Your task to perform on an android device: Open the Play Movies app and select the watchlist tab. Image 0: 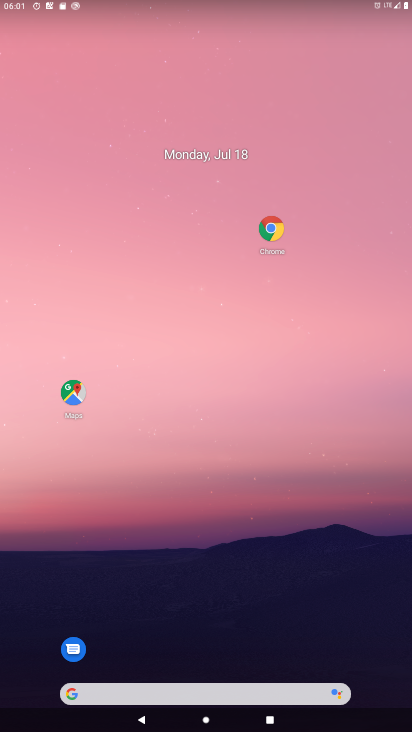
Step 0: drag from (154, 659) to (174, 12)
Your task to perform on an android device: Open the Play Movies app and select the watchlist tab. Image 1: 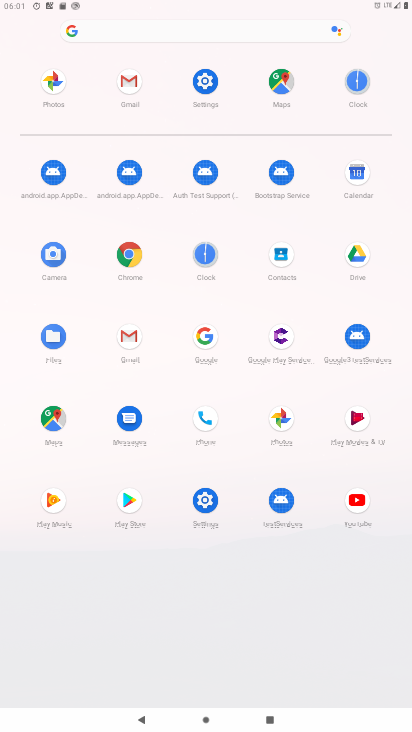
Step 1: click (360, 422)
Your task to perform on an android device: Open the Play Movies app and select the watchlist tab. Image 2: 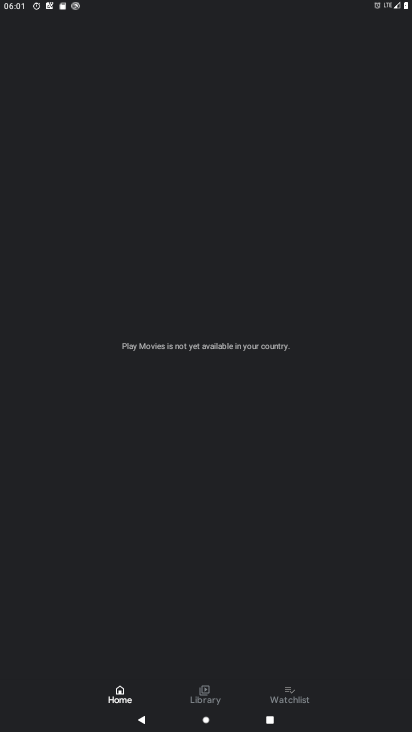
Step 2: click (302, 701)
Your task to perform on an android device: Open the Play Movies app and select the watchlist tab. Image 3: 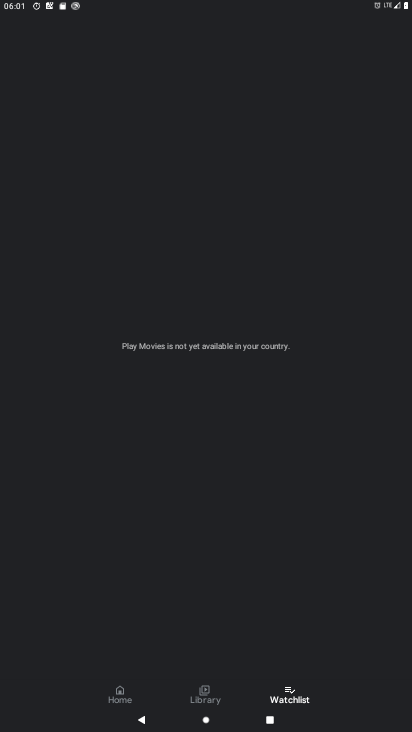
Step 3: task complete